Your task to perform on an android device: clear history in the chrome app Image 0: 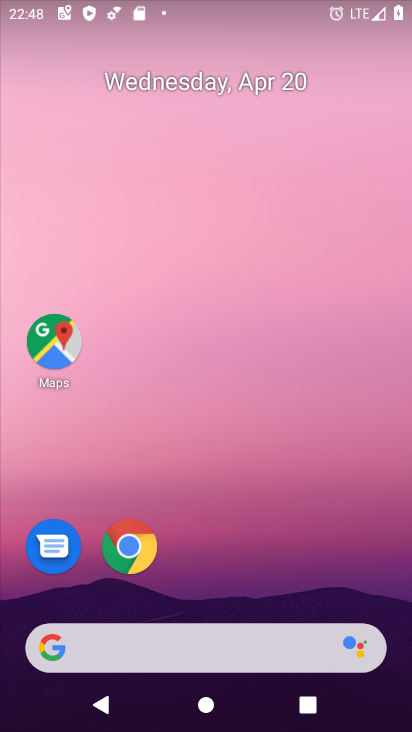
Step 0: click (136, 551)
Your task to perform on an android device: clear history in the chrome app Image 1: 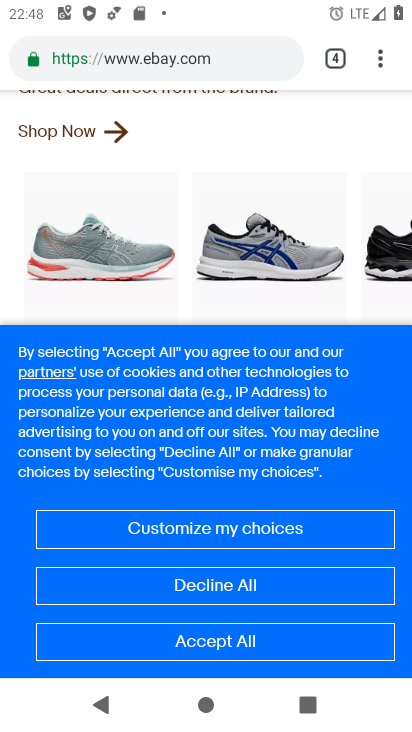
Step 1: drag from (380, 57) to (163, 330)
Your task to perform on an android device: clear history in the chrome app Image 2: 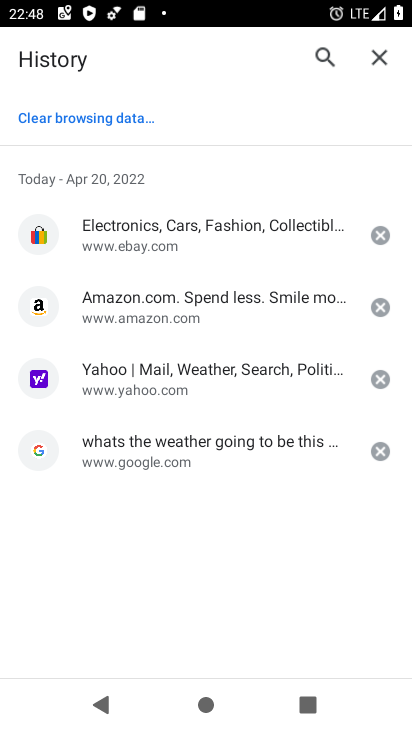
Step 2: click (68, 122)
Your task to perform on an android device: clear history in the chrome app Image 3: 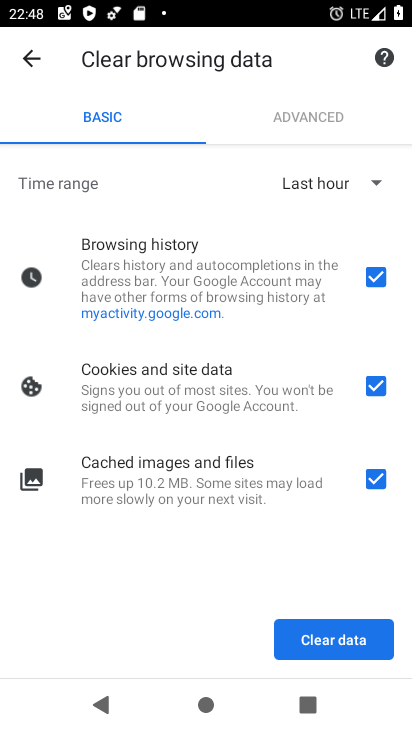
Step 3: click (342, 632)
Your task to perform on an android device: clear history in the chrome app Image 4: 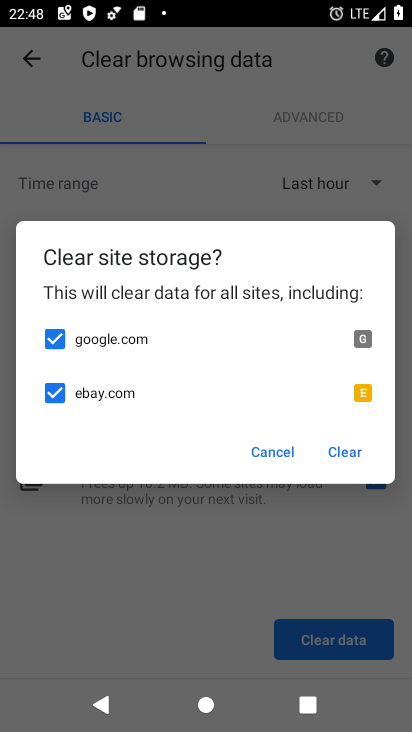
Step 4: click (342, 453)
Your task to perform on an android device: clear history in the chrome app Image 5: 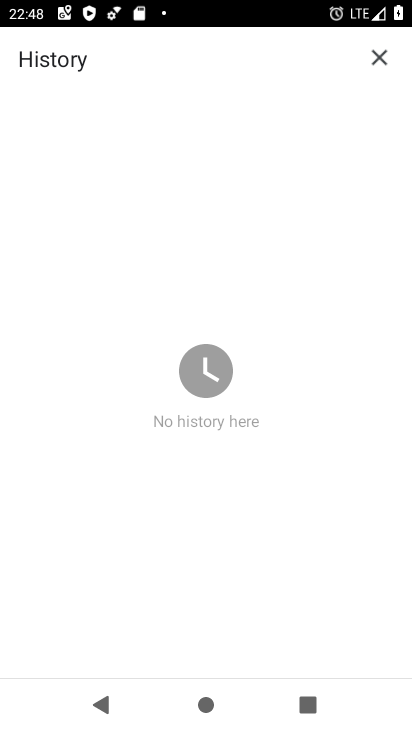
Step 5: task complete